Your task to perform on an android device: Open ESPN.com Image 0: 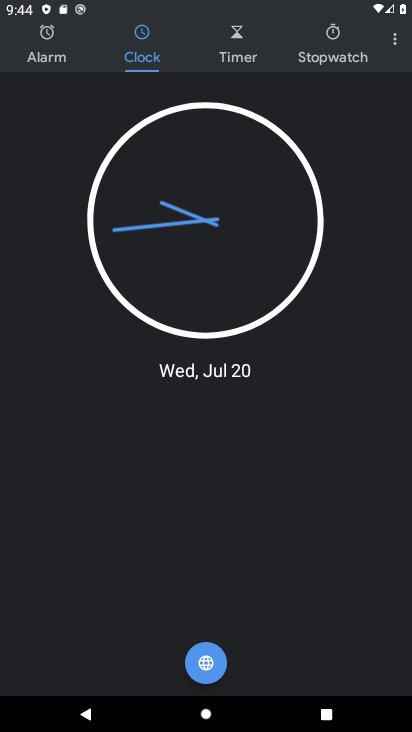
Step 0: press back button
Your task to perform on an android device: Open ESPN.com Image 1: 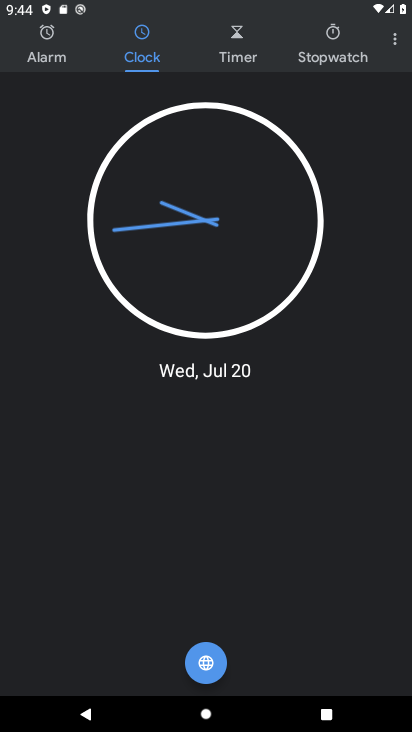
Step 1: press back button
Your task to perform on an android device: Open ESPN.com Image 2: 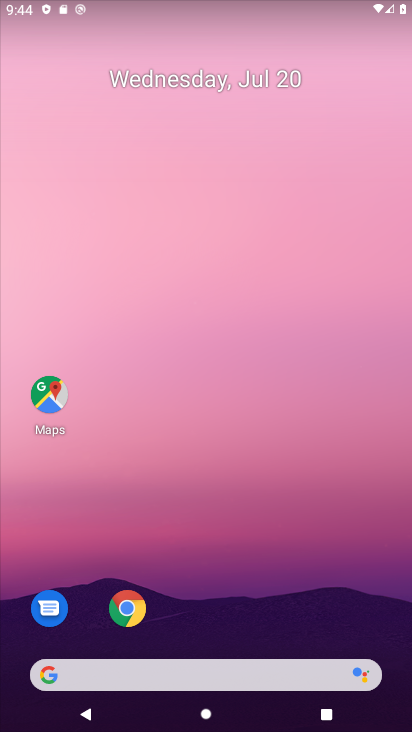
Step 2: drag from (232, 675) to (237, 153)
Your task to perform on an android device: Open ESPN.com Image 3: 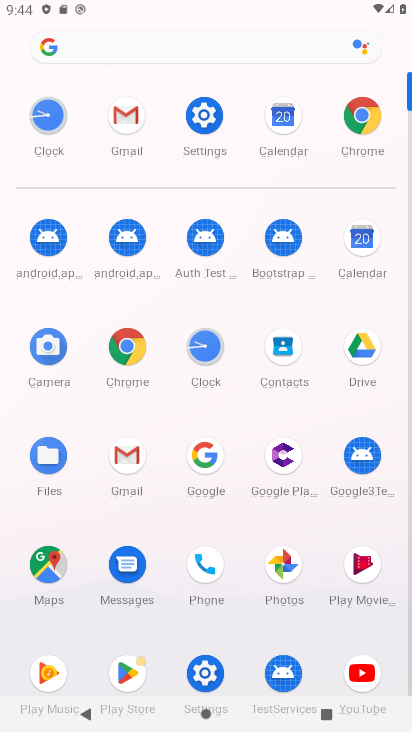
Step 3: click (377, 120)
Your task to perform on an android device: Open ESPN.com Image 4: 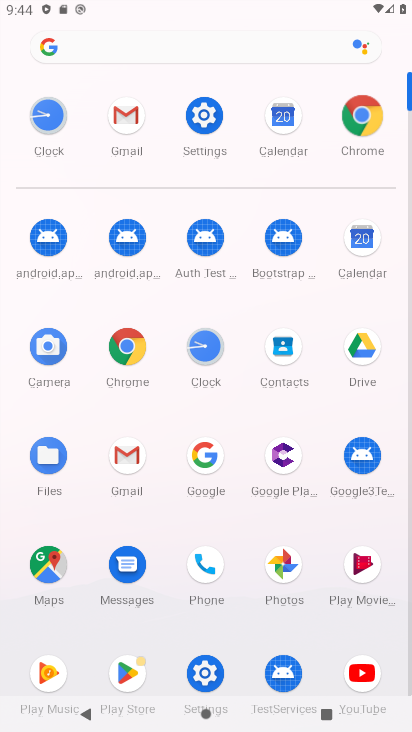
Step 4: click (370, 117)
Your task to perform on an android device: Open ESPN.com Image 5: 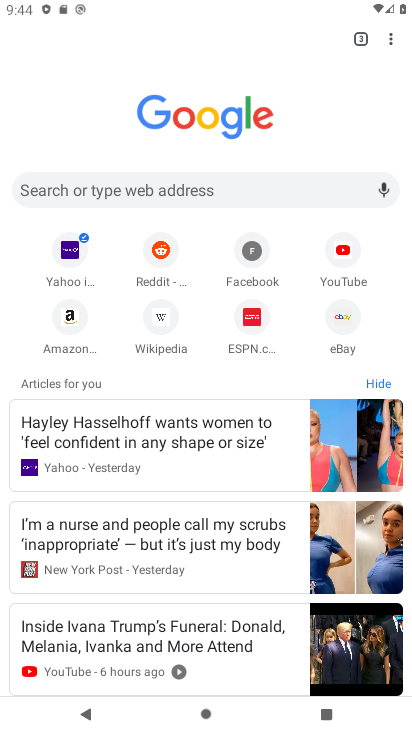
Step 5: click (260, 308)
Your task to perform on an android device: Open ESPN.com Image 6: 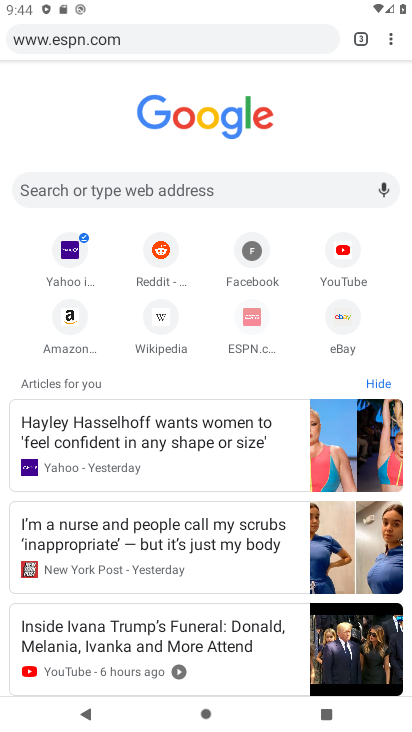
Step 6: click (259, 310)
Your task to perform on an android device: Open ESPN.com Image 7: 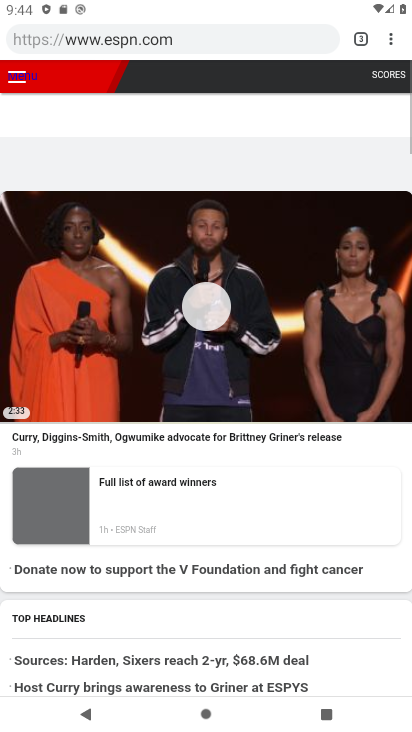
Step 7: task complete